Your task to perform on an android device: delete location history Image 0: 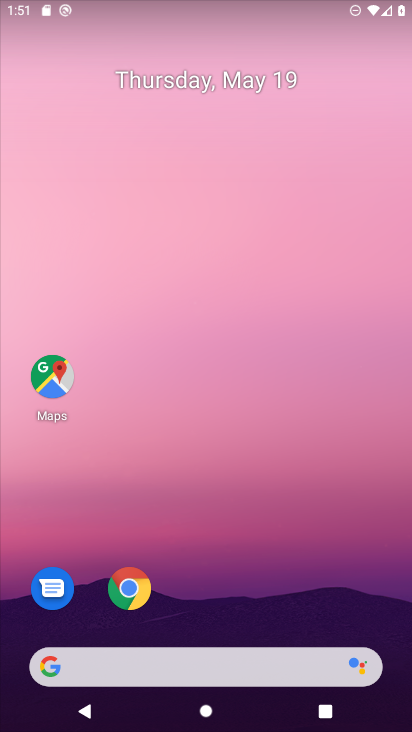
Step 0: click (63, 372)
Your task to perform on an android device: delete location history Image 1: 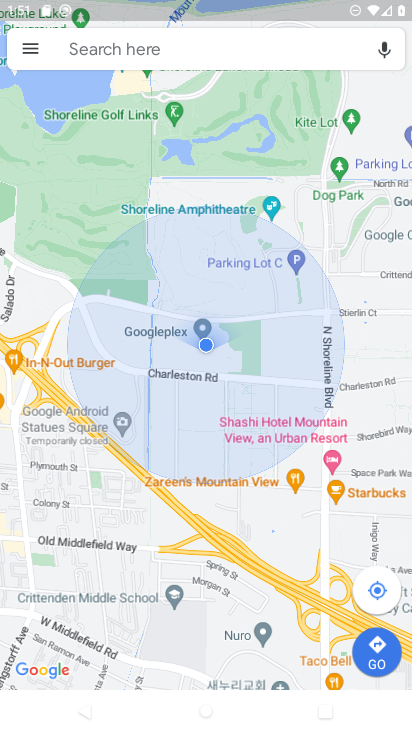
Step 1: click (31, 54)
Your task to perform on an android device: delete location history Image 2: 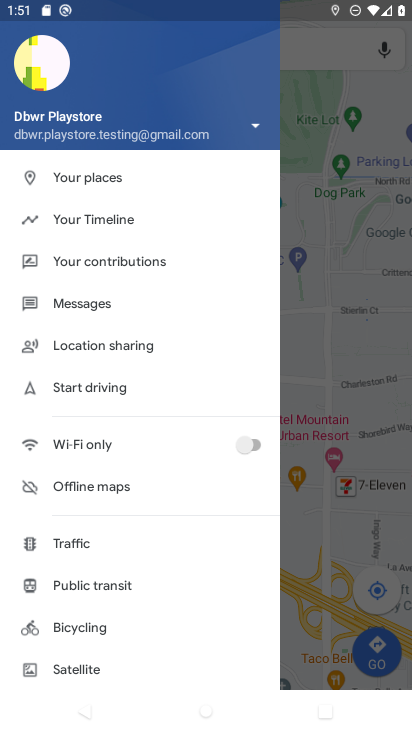
Step 2: click (70, 221)
Your task to perform on an android device: delete location history Image 3: 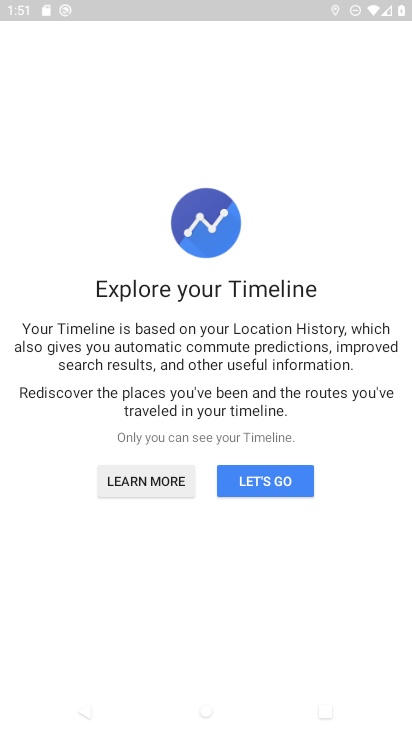
Step 3: click (263, 493)
Your task to perform on an android device: delete location history Image 4: 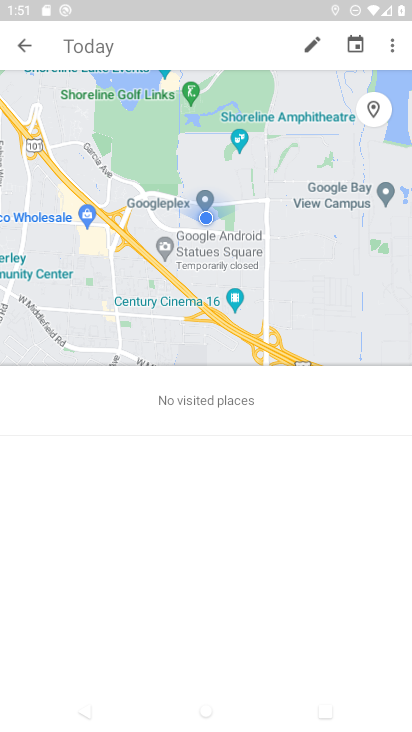
Step 4: click (393, 50)
Your task to perform on an android device: delete location history Image 5: 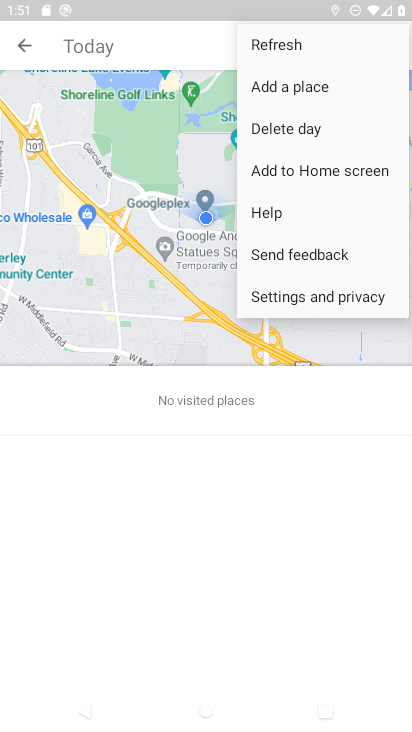
Step 5: click (284, 295)
Your task to perform on an android device: delete location history Image 6: 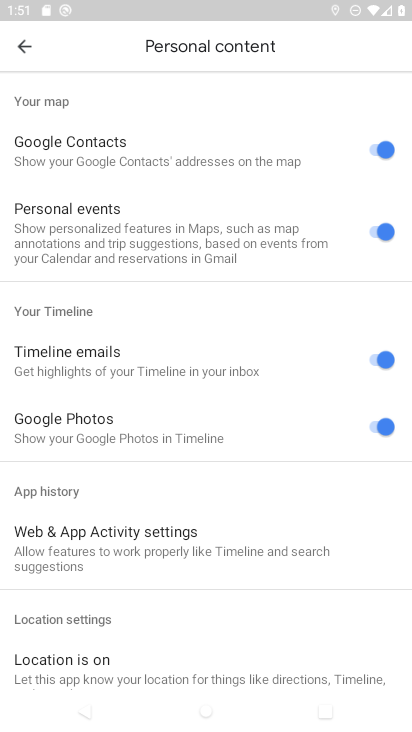
Step 6: drag from (141, 514) to (142, 214)
Your task to perform on an android device: delete location history Image 7: 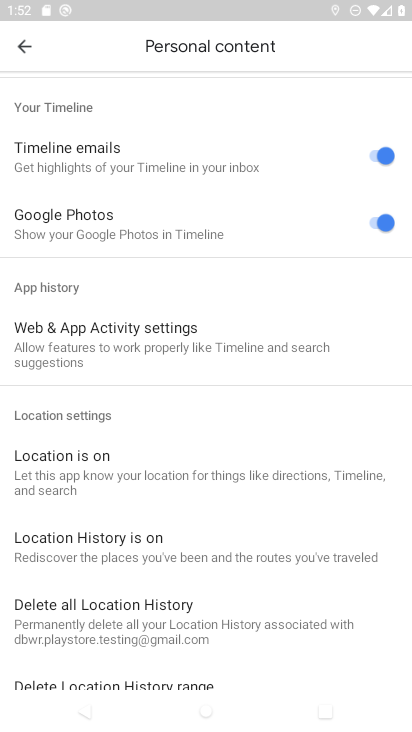
Step 7: click (96, 614)
Your task to perform on an android device: delete location history Image 8: 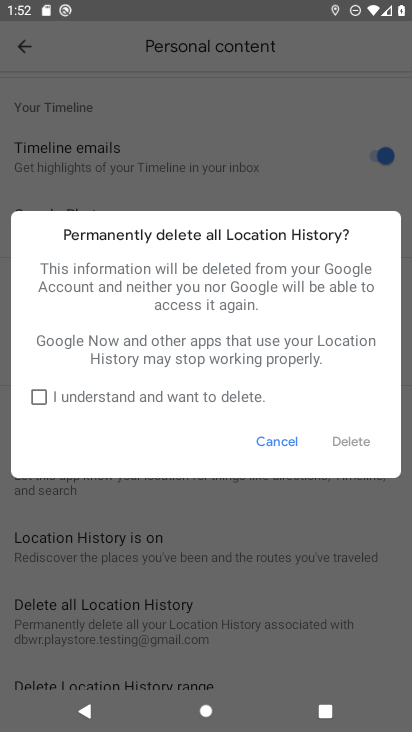
Step 8: click (39, 395)
Your task to perform on an android device: delete location history Image 9: 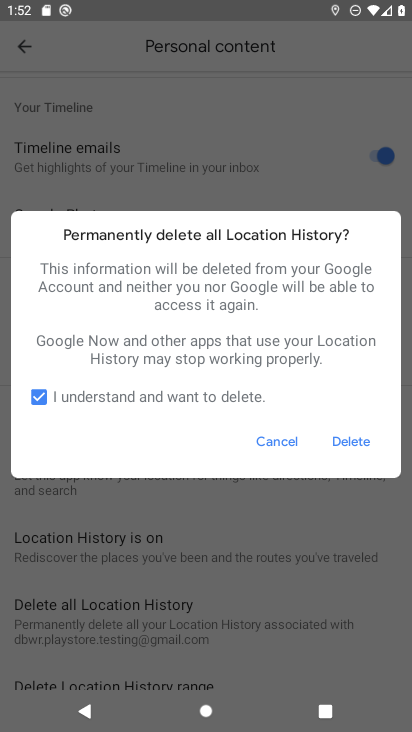
Step 9: click (356, 437)
Your task to perform on an android device: delete location history Image 10: 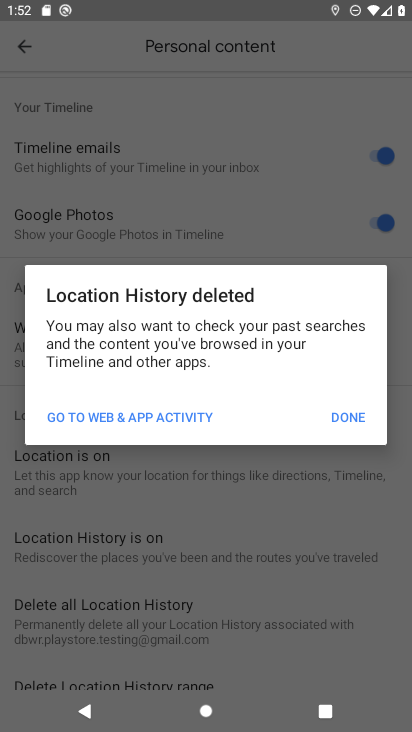
Step 10: click (357, 418)
Your task to perform on an android device: delete location history Image 11: 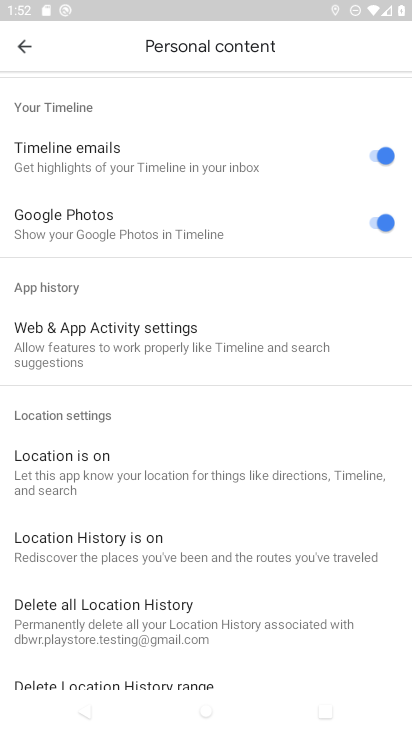
Step 11: task complete